Your task to perform on an android device: View the shopping cart on bestbuy. Search for "razer blade" on bestbuy, select the first entry, and add it to the cart. Image 0: 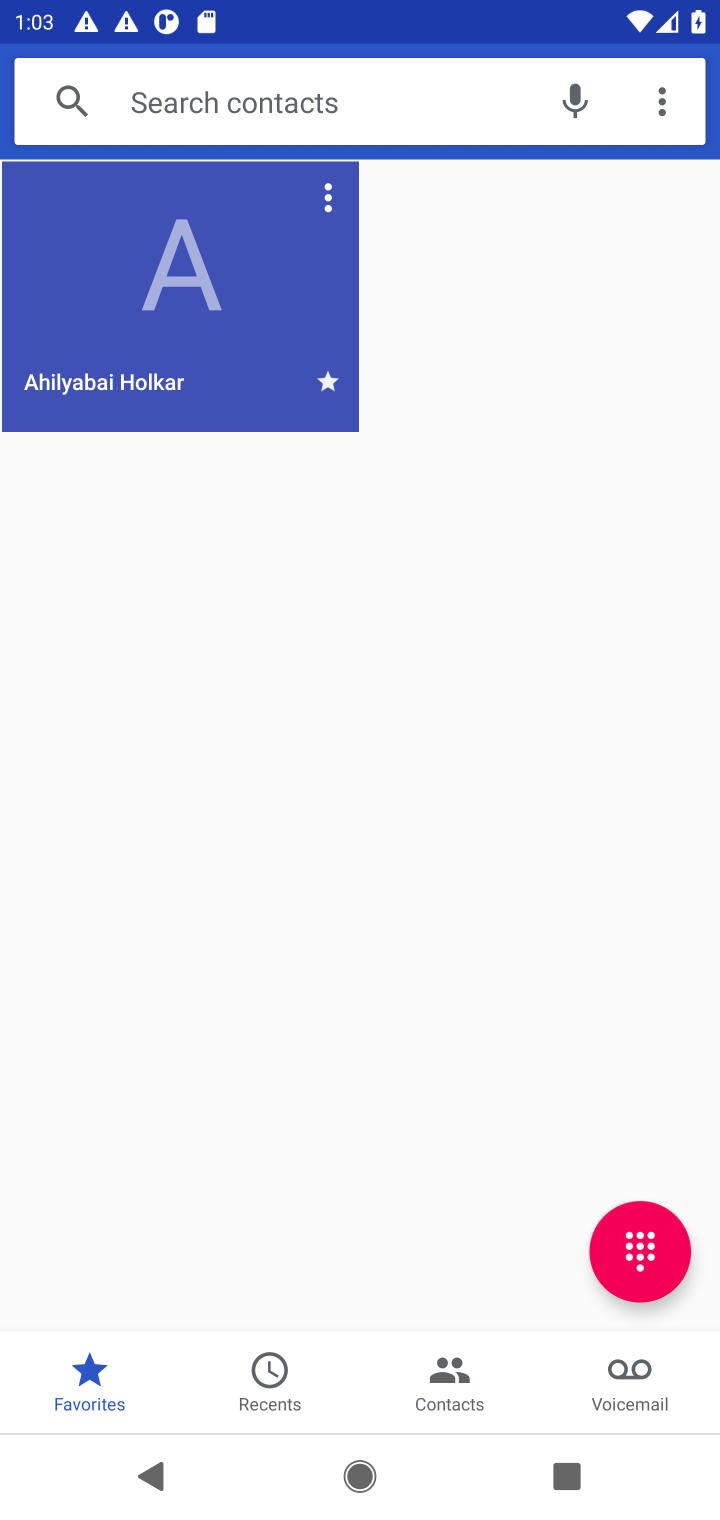
Step 0: press home button
Your task to perform on an android device: View the shopping cart on bestbuy. Search for "razer blade" on bestbuy, select the first entry, and add it to the cart. Image 1: 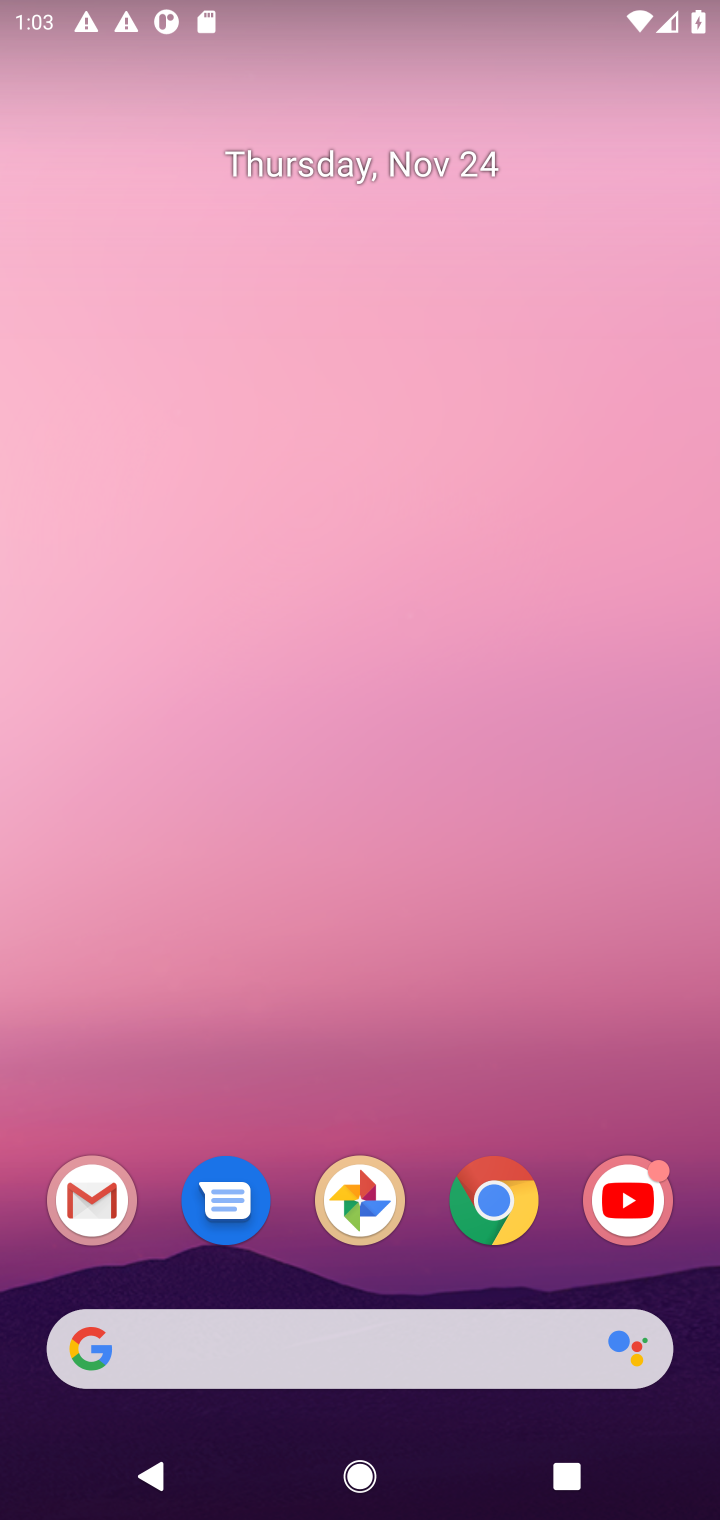
Step 1: click (293, 1350)
Your task to perform on an android device: View the shopping cart on bestbuy. Search for "razer blade" on bestbuy, select the first entry, and add it to the cart. Image 2: 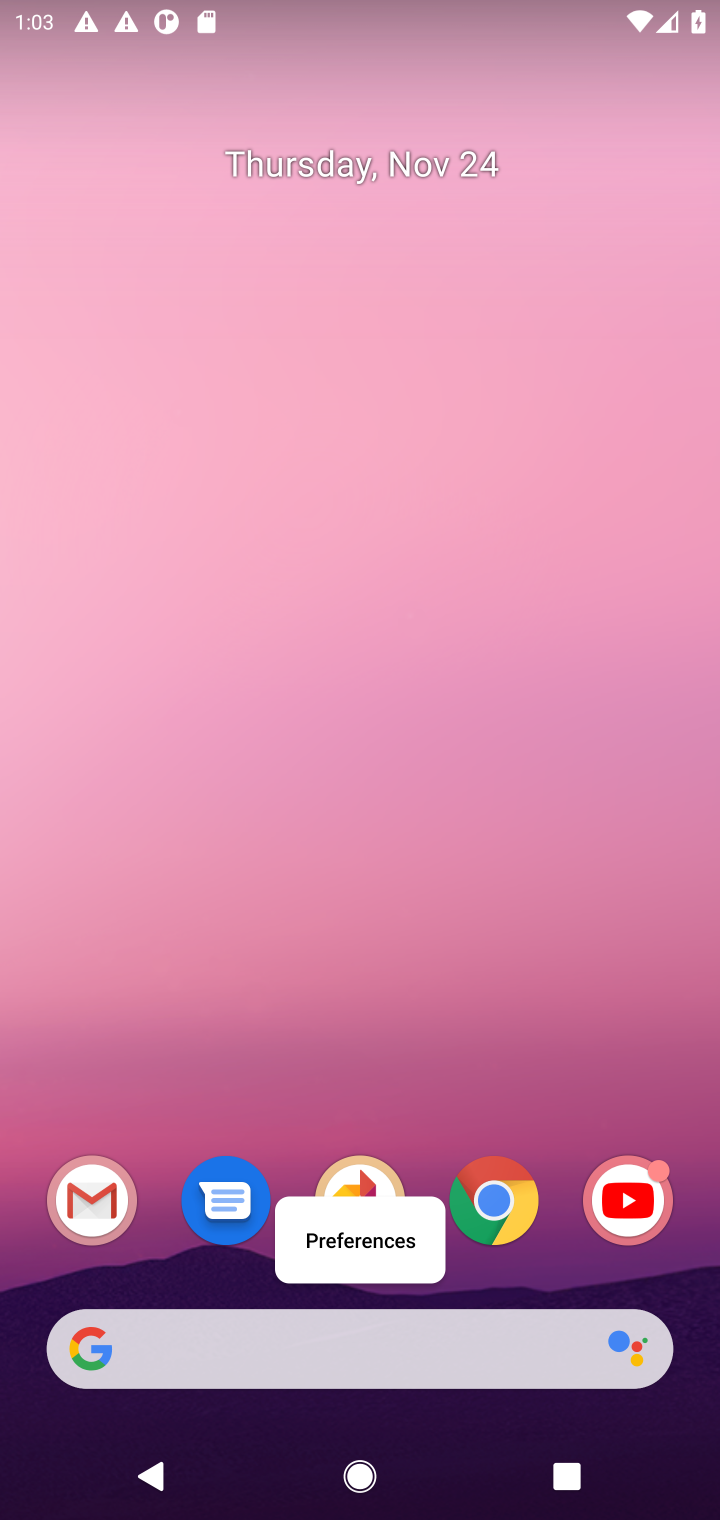
Step 2: type "bestbuy"
Your task to perform on an android device: View the shopping cart on bestbuy. Search for "razer blade" on bestbuy, select the first entry, and add it to the cart. Image 3: 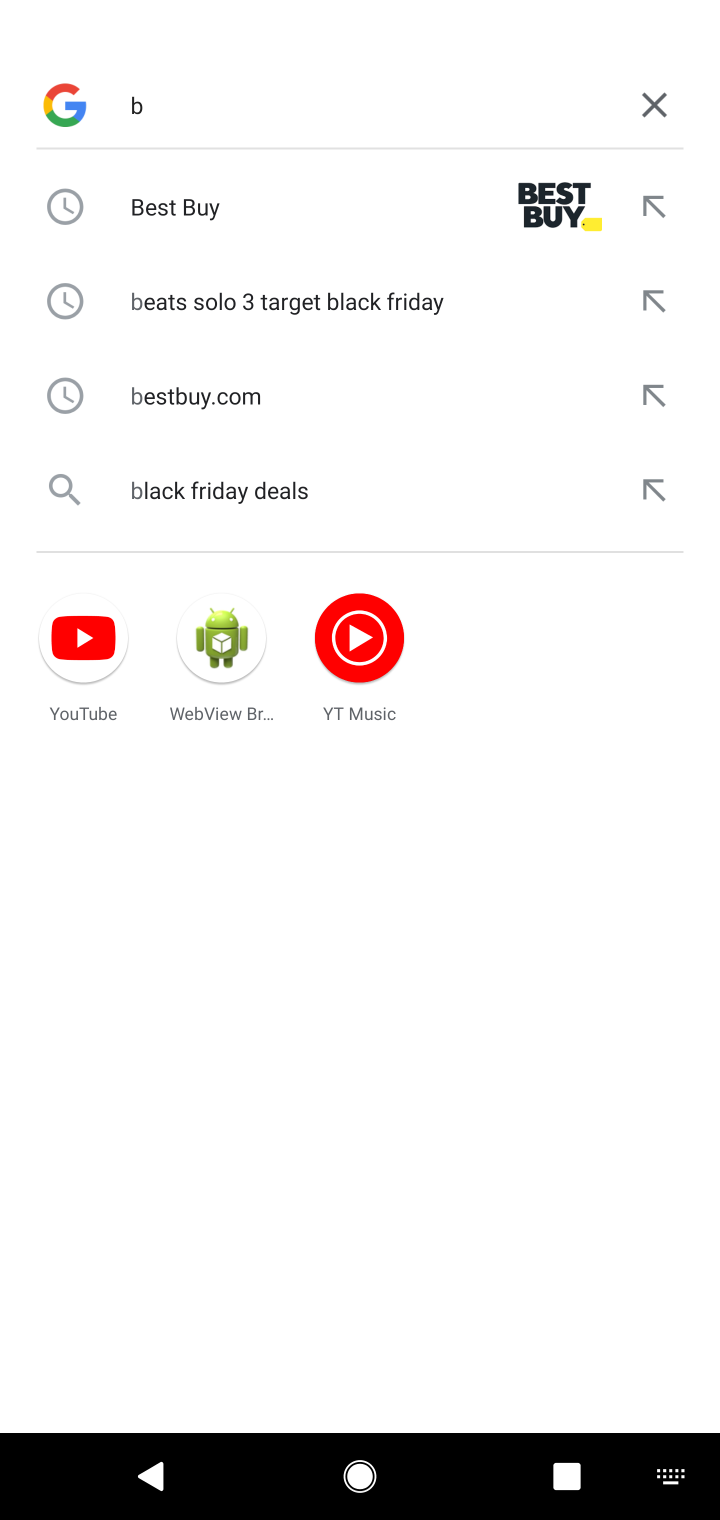
Step 3: click (320, 242)
Your task to perform on an android device: View the shopping cart on bestbuy. Search for "razer blade" on bestbuy, select the first entry, and add it to the cart. Image 4: 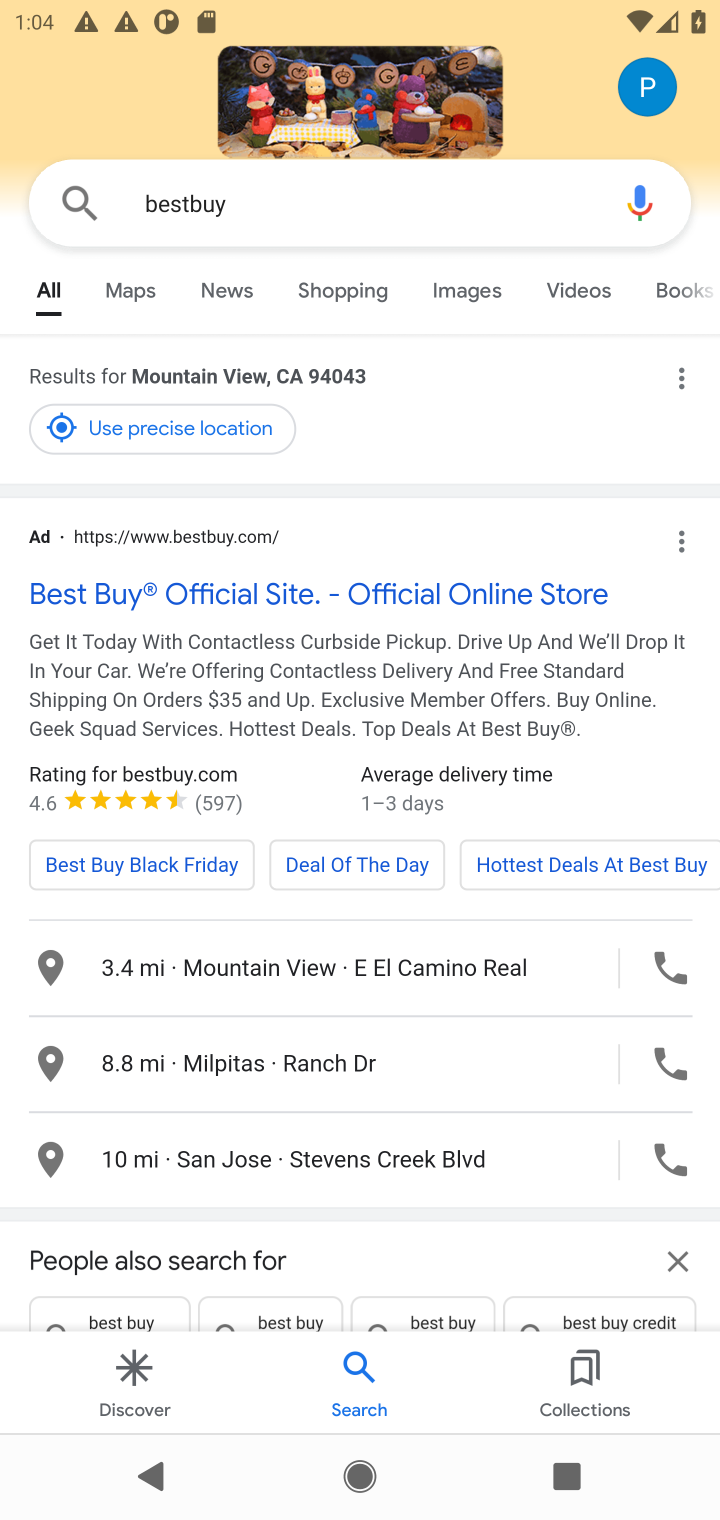
Step 4: click (308, 594)
Your task to perform on an android device: View the shopping cart on bestbuy. Search for "razer blade" on bestbuy, select the first entry, and add it to the cart. Image 5: 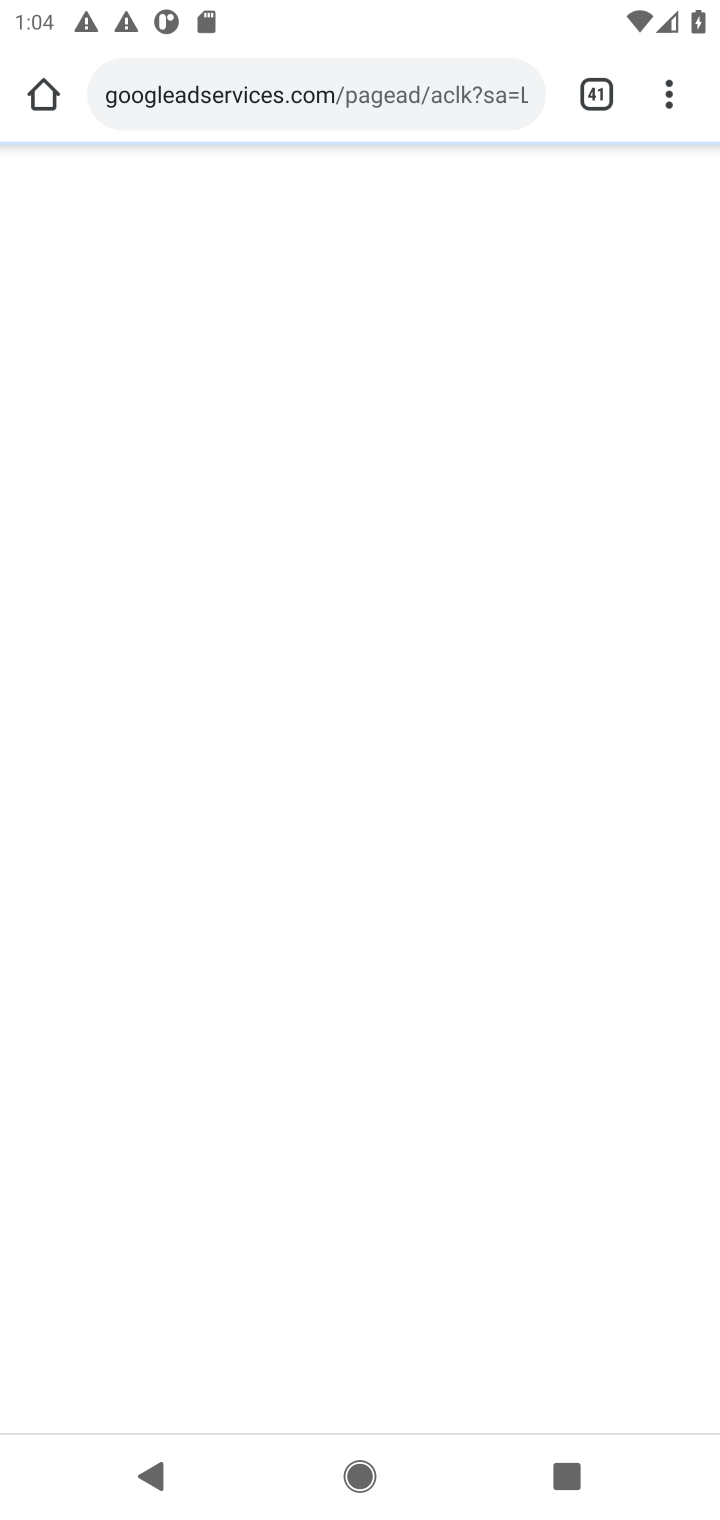
Step 5: task complete